Your task to perform on an android device: find snoozed emails in the gmail app Image 0: 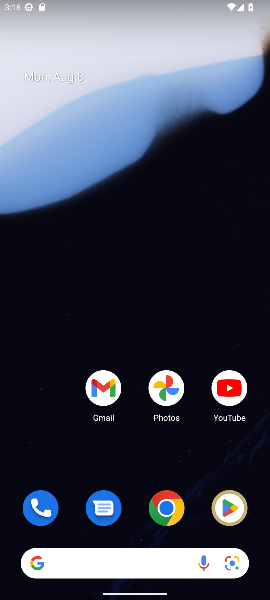
Step 0: press home button
Your task to perform on an android device: find snoozed emails in the gmail app Image 1: 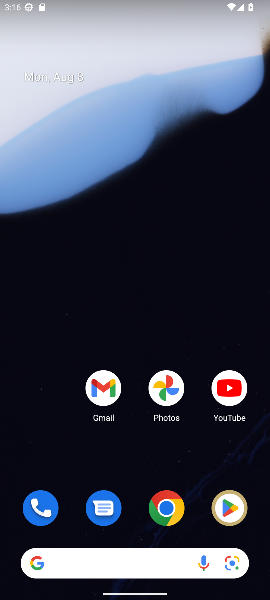
Step 1: click (102, 389)
Your task to perform on an android device: find snoozed emails in the gmail app Image 2: 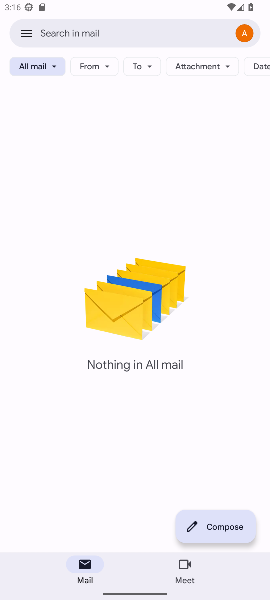
Step 2: click (24, 30)
Your task to perform on an android device: find snoozed emails in the gmail app Image 3: 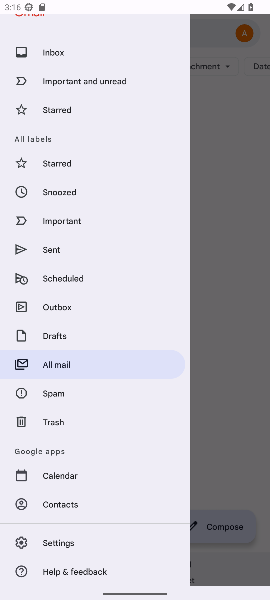
Step 3: click (63, 191)
Your task to perform on an android device: find snoozed emails in the gmail app Image 4: 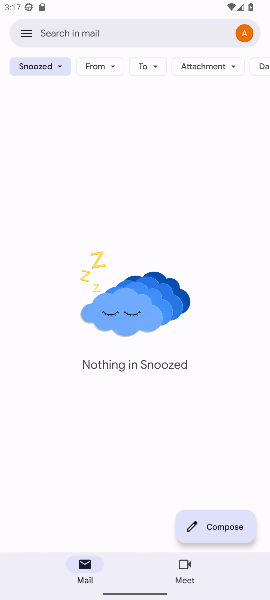
Step 4: task complete